Your task to perform on an android device: Open Google Chrome and click the shortcut for Amazon.com Image 0: 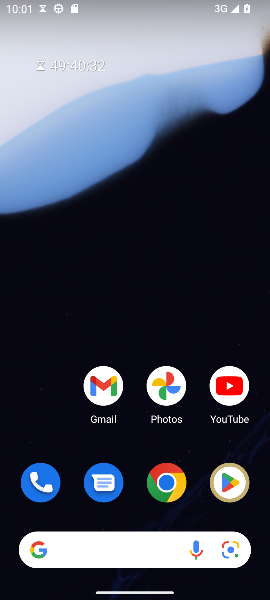
Step 0: drag from (160, 463) to (214, 0)
Your task to perform on an android device: Open Google Chrome and click the shortcut for Amazon.com Image 1: 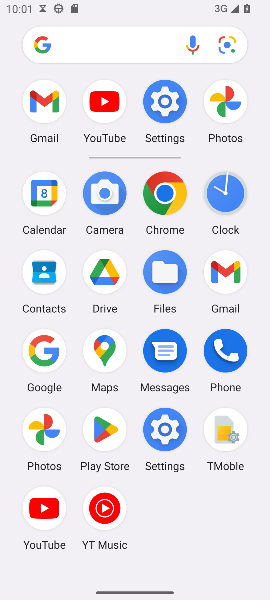
Step 1: click (176, 203)
Your task to perform on an android device: Open Google Chrome and click the shortcut for Amazon.com Image 2: 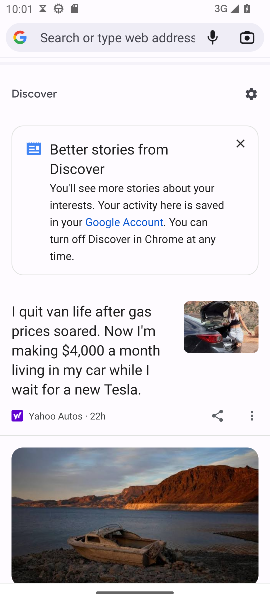
Step 2: click (119, 31)
Your task to perform on an android device: Open Google Chrome and click the shortcut for Amazon.com Image 3: 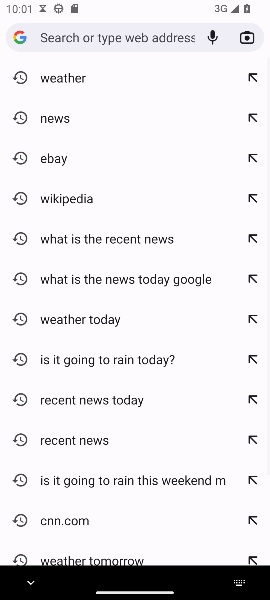
Step 3: press back button
Your task to perform on an android device: Open Google Chrome and click the shortcut for Amazon.com Image 4: 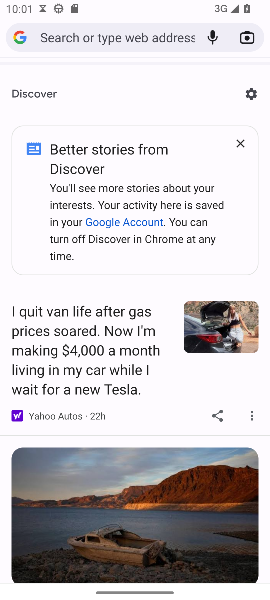
Step 4: press back button
Your task to perform on an android device: Open Google Chrome and click the shortcut for Amazon.com Image 5: 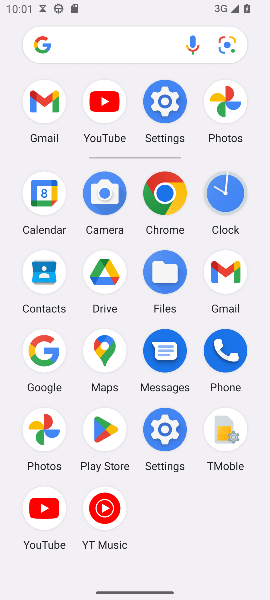
Step 5: click (152, 195)
Your task to perform on an android device: Open Google Chrome and click the shortcut for Amazon.com Image 6: 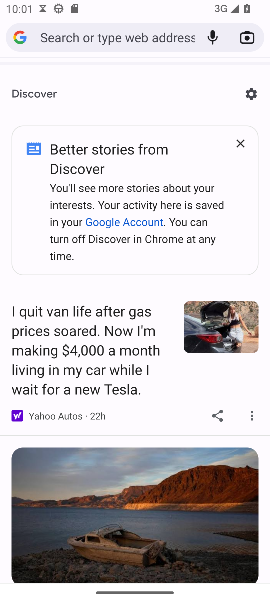
Step 6: click (114, 42)
Your task to perform on an android device: Open Google Chrome and click the shortcut for Amazon.com Image 7: 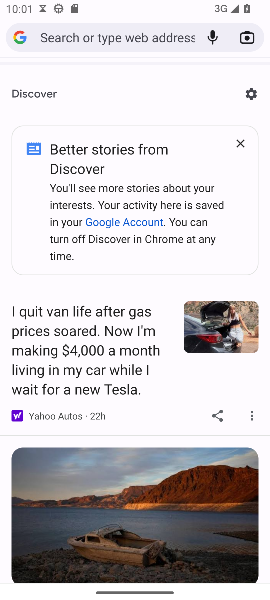
Step 7: type "Amazon.com"
Your task to perform on an android device: Open Google Chrome and click the shortcut for Amazon.com Image 8: 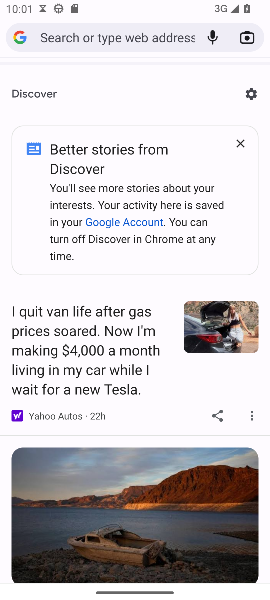
Step 8: click (151, 32)
Your task to perform on an android device: Open Google Chrome and click the shortcut for Amazon.com Image 9: 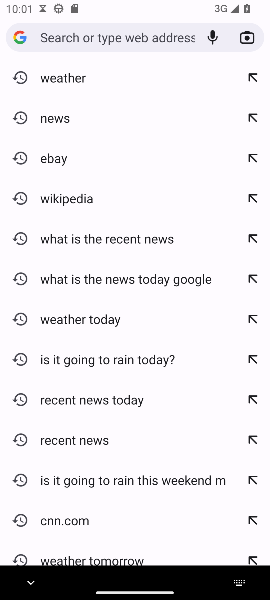
Step 9: type "Amazon.com"
Your task to perform on an android device: Open Google Chrome and click the shortcut for Amazon.com Image 10: 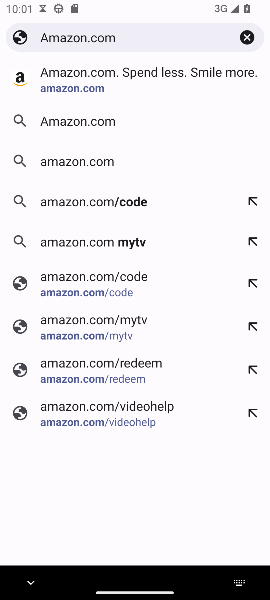
Step 10: click (93, 85)
Your task to perform on an android device: Open Google Chrome and click the shortcut for Amazon.com Image 11: 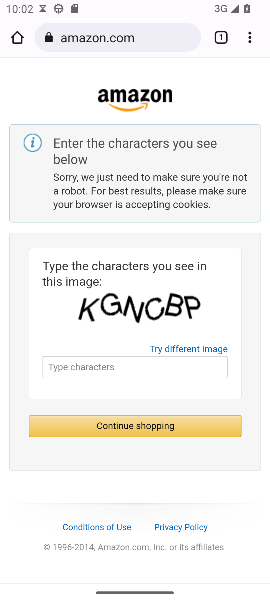
Step 11: drag from (252, 40) to (147, 452)
Your task to perform on an android device: Open Google Chrome and click the shortcut for Amazon.com Image 12: 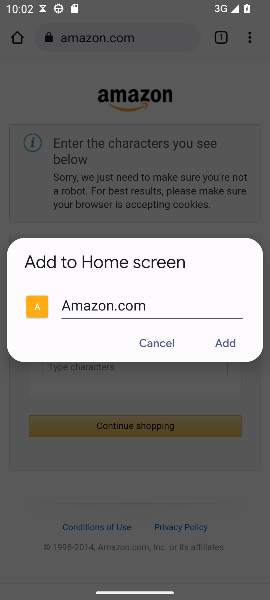
Step 12: click (227, 337)
Your task to perform on an android device: Open Google Chrome and click the shortcut for Amazon.com Image 13: 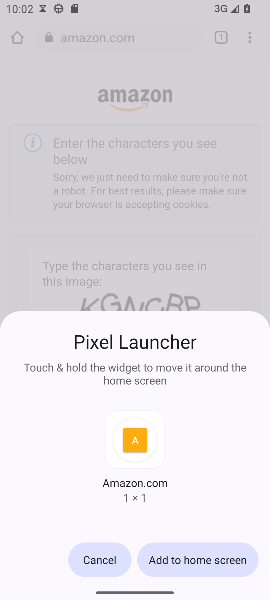
Step 13: click (192, 561)
Your task to perform on an android device: Open Google Chrome and click the shortcut for Amazon.com Image 14: 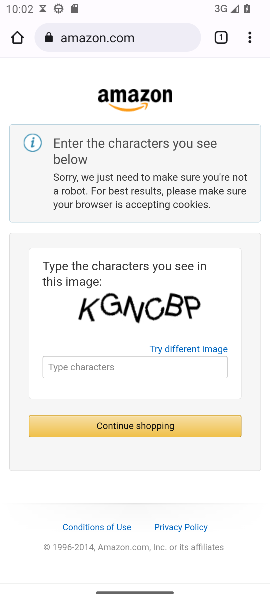
Step 14: task complete